Your task to perform on an android device: open a new tab in the chrome app Image 0: 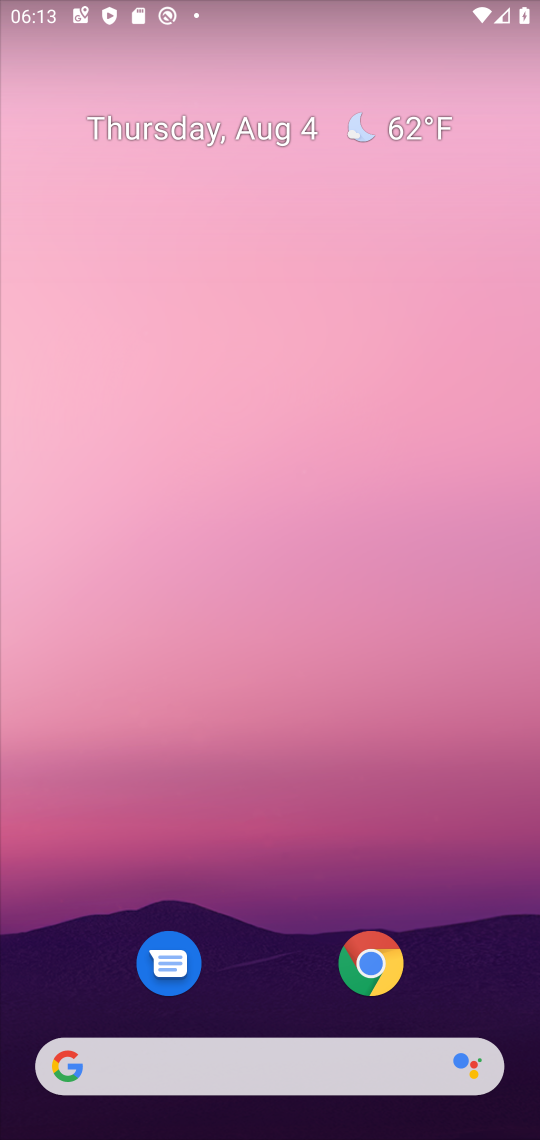
Step 0: press home button
Your task to perform on an android device: open a new tab in the chrome app Image 1: 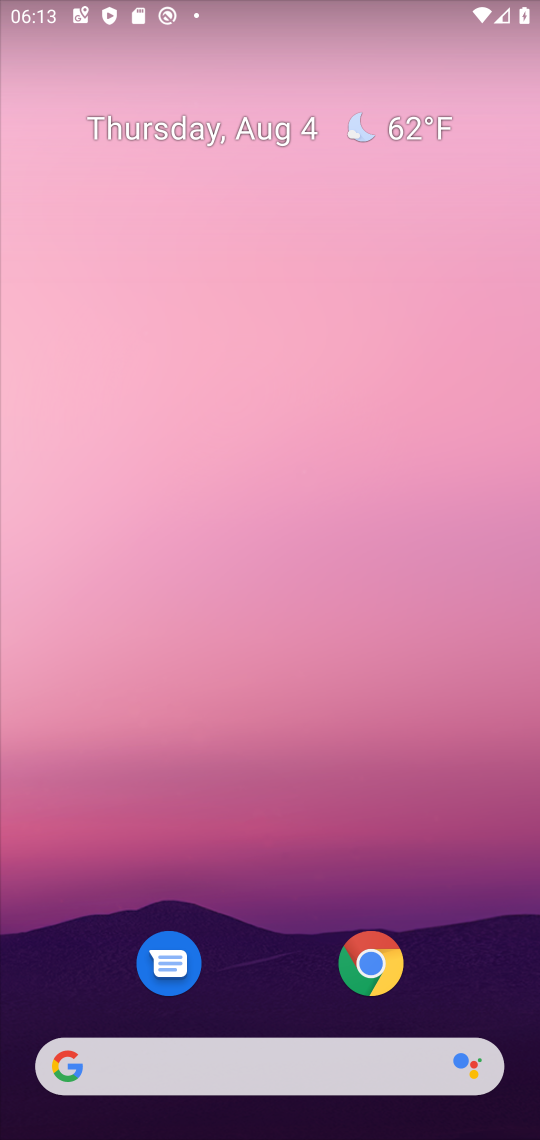
Step 1: click (381, 967)
Your task to perform on an android device: open a new tab in the chrome app Image 2: 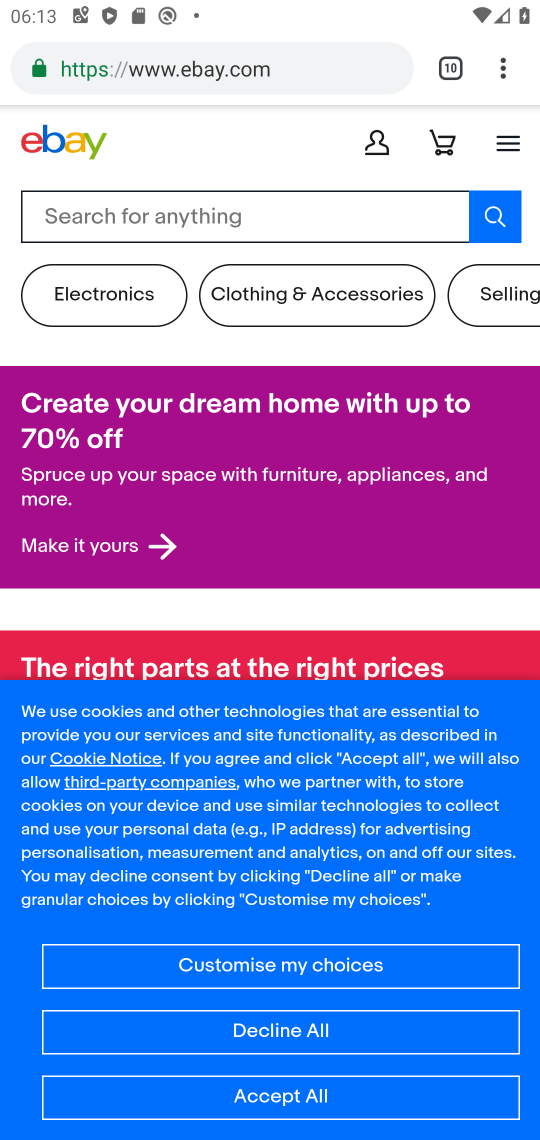
Step 2: click (500, 67)
Your task to perform on an android device: open a new tab in the chrome app Image 3: 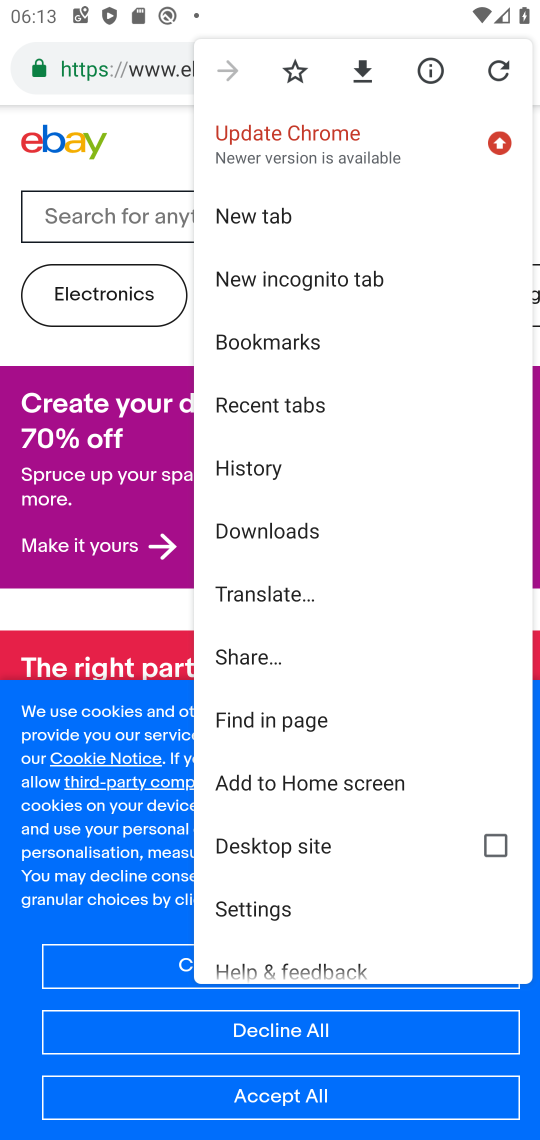
Step 3: click (286, 194)
Your task to perform on an android device: open a new tab in the chrome app Image 4: 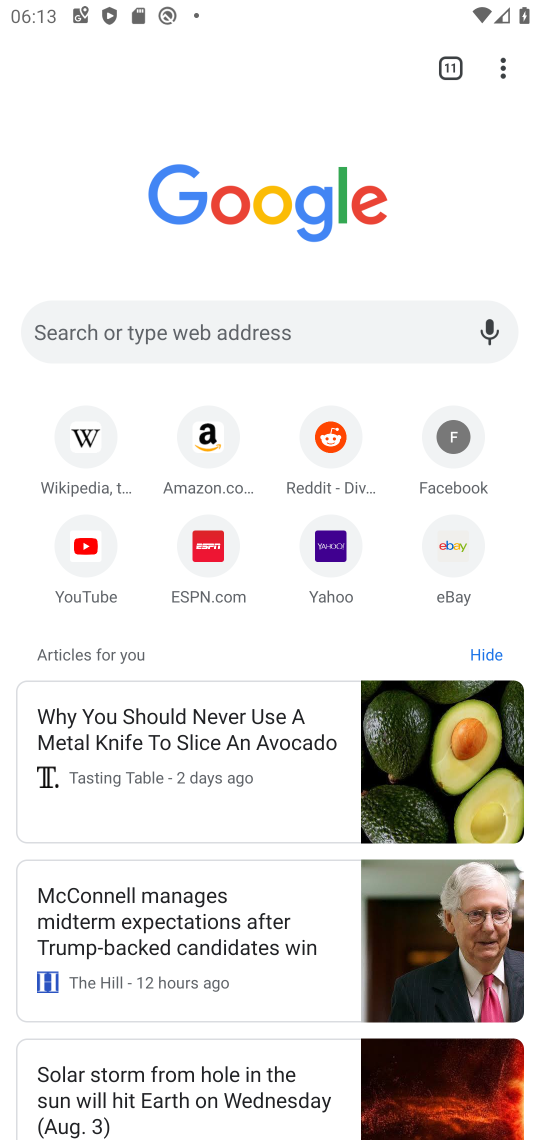
Step 4: task complete